Your task to perform on an android device: set an alarm Image 0: 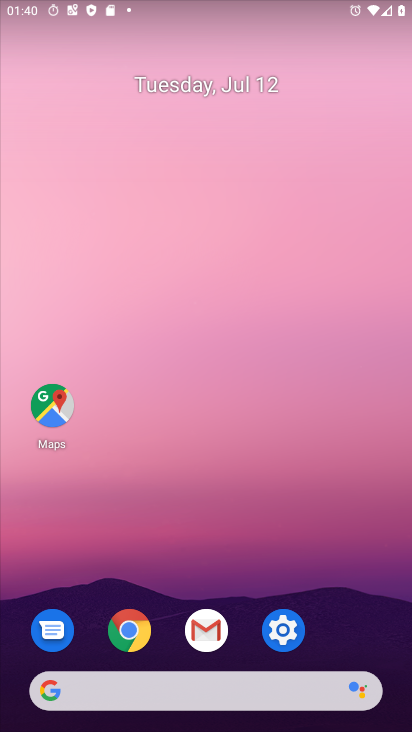
Step 0: drag from (204, 337) to (180, 267)
Your task to perform on an android device: set an alarm Image 1: 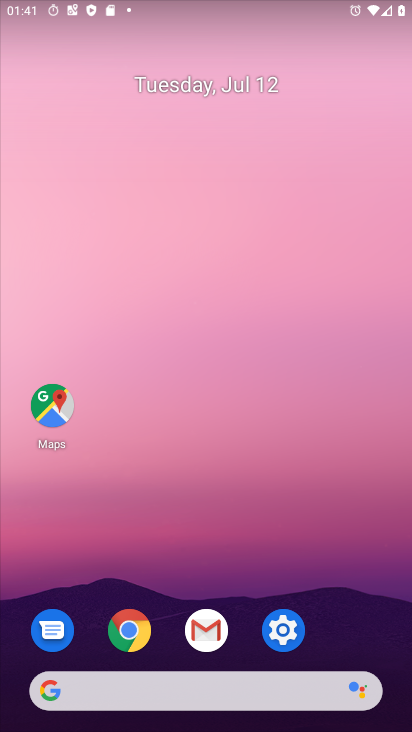
Step 1: drag from (237, 651) to (193, 104)
Your task to perform on an android device: set an alarm Image 2: 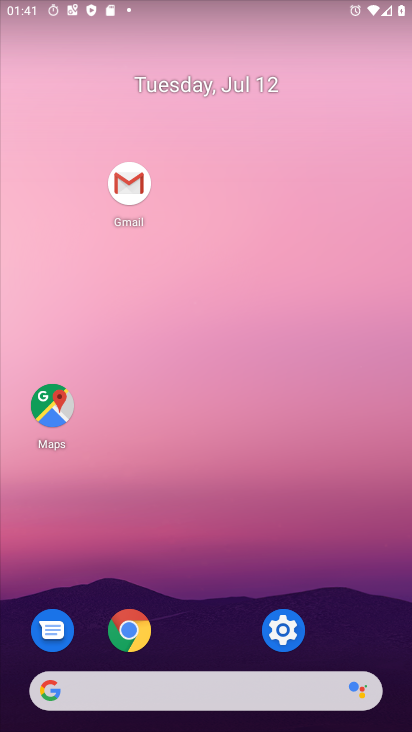
Step 2: drag from (141, 204) to (243, 633)
Your task to perform on an android device: set an alarm Image 3: 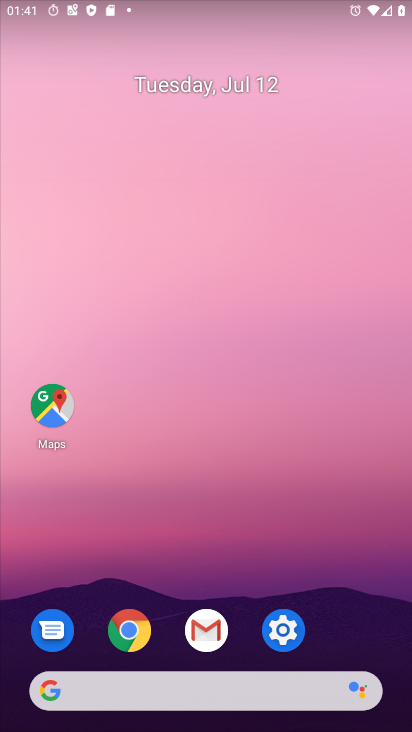
Step 3: drag from (239, 714) to (201, 86)
Your task to perform on an android device: set an alarm Image 4: 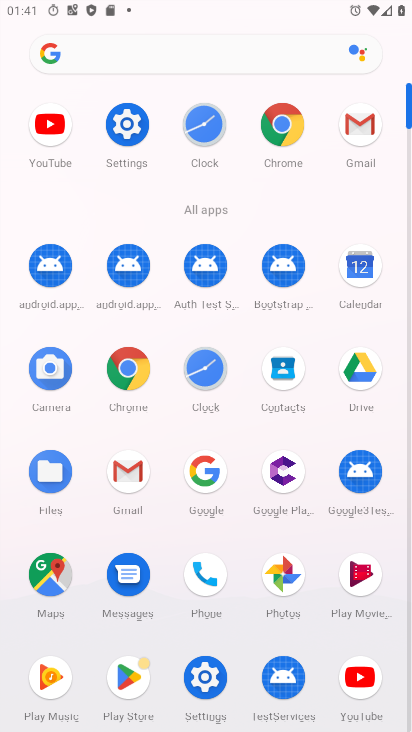
Step 4: click (201, 146)
Your task to perform on an android device: set an alarm Image 5: 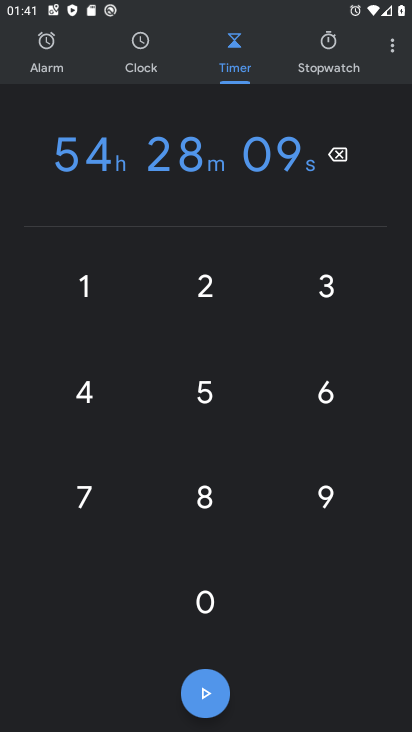
Step 5: click (70, 53)
Your task to perform on an android device: set an alarm Image 6: 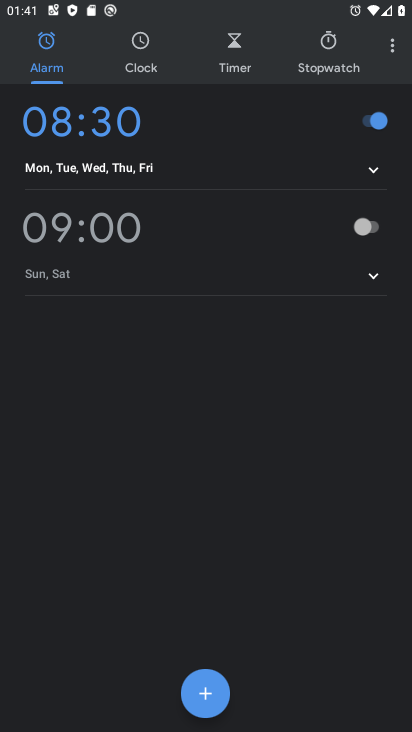
Step 6: click (370, 232)
Your task to perform on an android device: set an alarm Image 7: 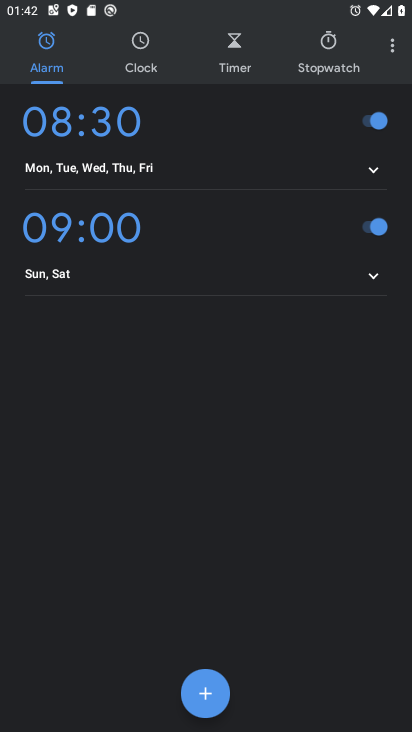
Step 7: task complete